Your task to perform on an android device: check battery use Image 0: 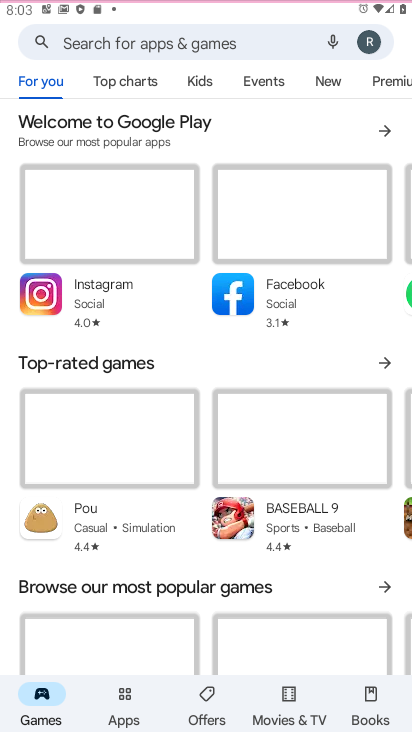
Step 0: drag from (192, 165) to (149, 31)
Your task to perform on an android device: check battery use Image 1: 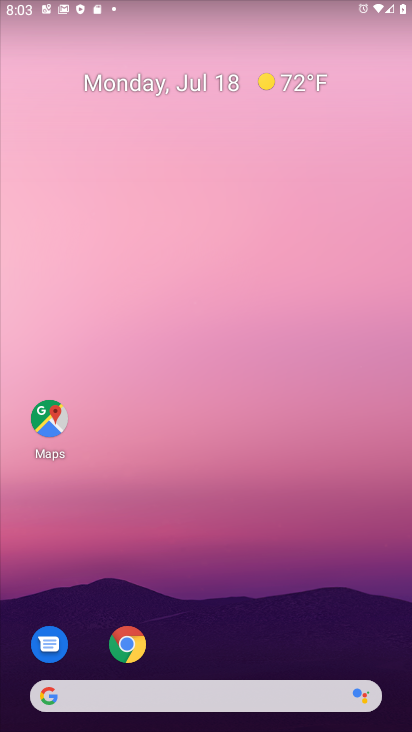
Step 1: drag from (372, 616) to (180, 0)
Your task to perform on an android device: check battery use Image 2: 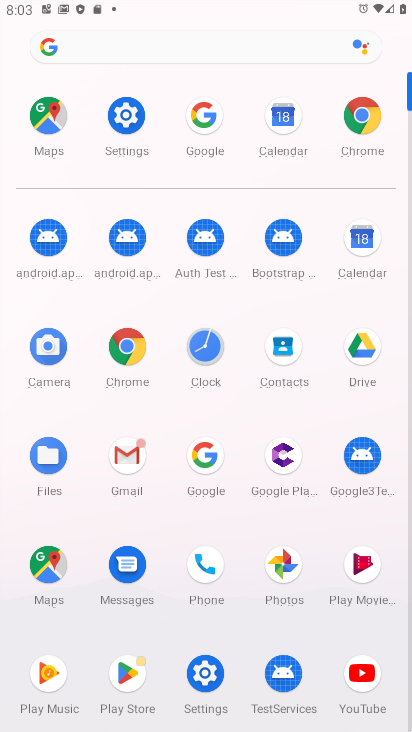
Step 2: click (125, 110)
Your task to perform on an android device: check battery use Image 3: 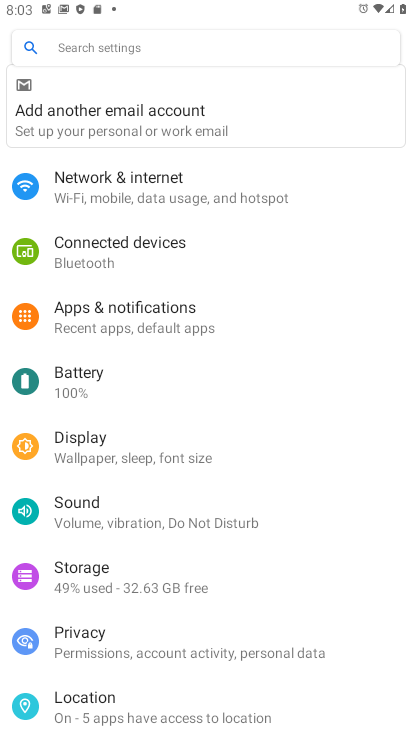
Step 3: drag from (164, 647) to (193, 96)
Your task to perform on an android device: check battery use Image 4: 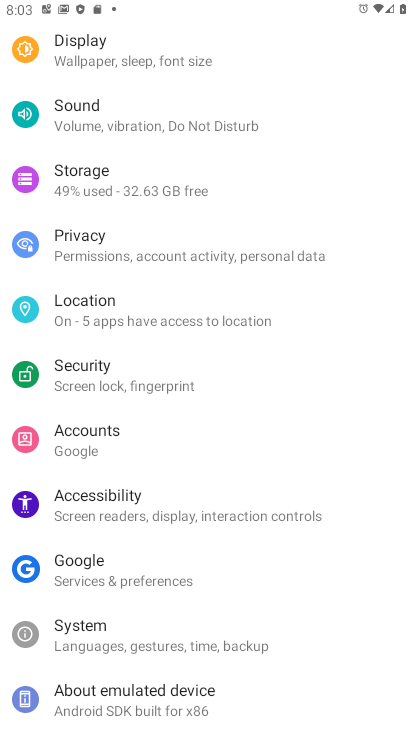
Step 4: drag from (112, 163) to (157, 686)
Your task to perform on an android device: check battery use Image 5: 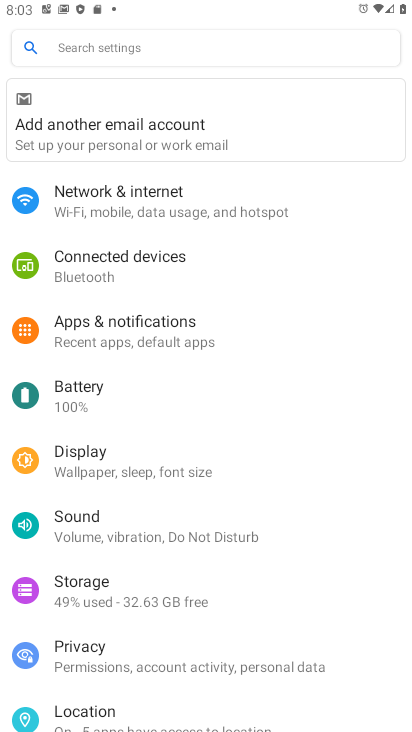
Step 5: click (100, 400)
Your task to perform on an android device: check battery use Image 6: 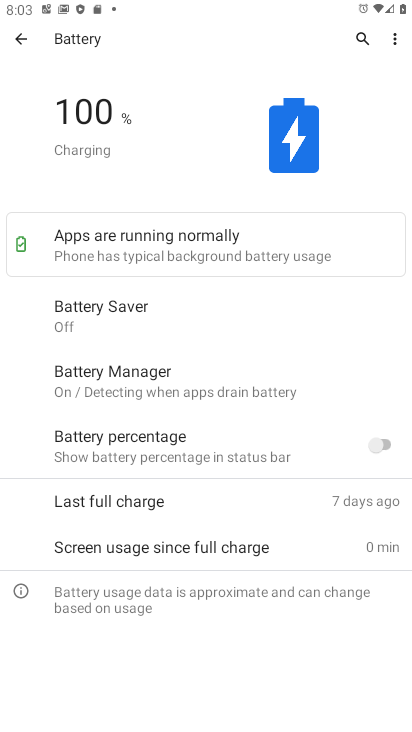
Step 6: click (391, 33)
Your task to perform on an android device: check battery use Image 7: 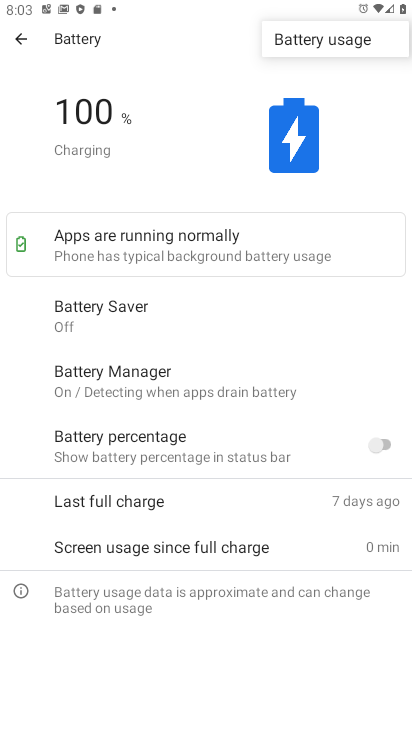
Step 7: click (302, 43)
Your task to perform on an android device: check battery use Image 8: 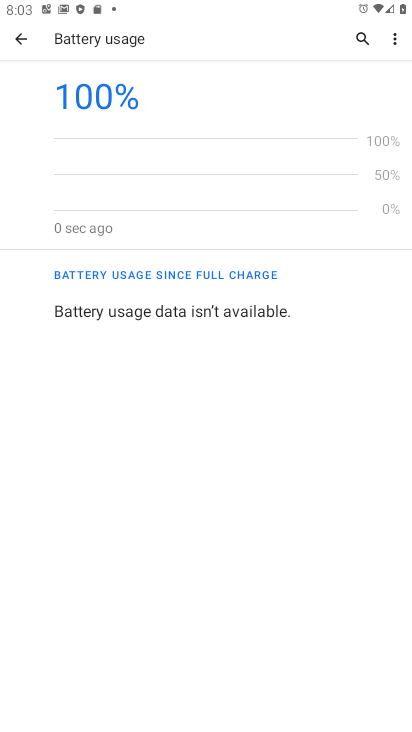
Step 8: task complete